Your task to perform on an android device: open app "Messenger Lite" (install if not already installed) Image 0: 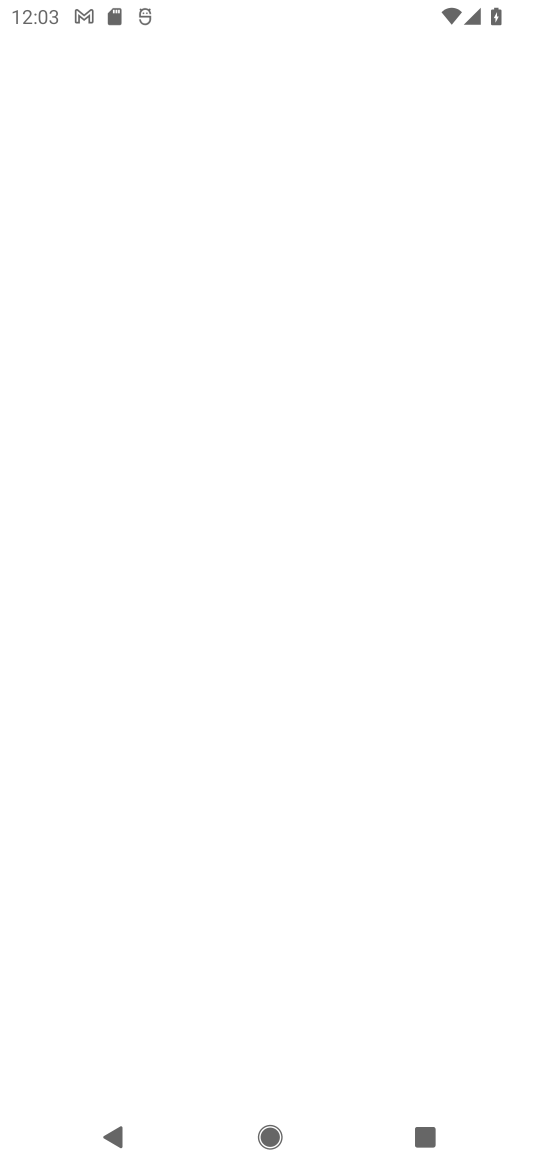
Step 0: press home button
Your task to perform on an android device: open app "Messenger Lite" (install if not already installed) Image 1: 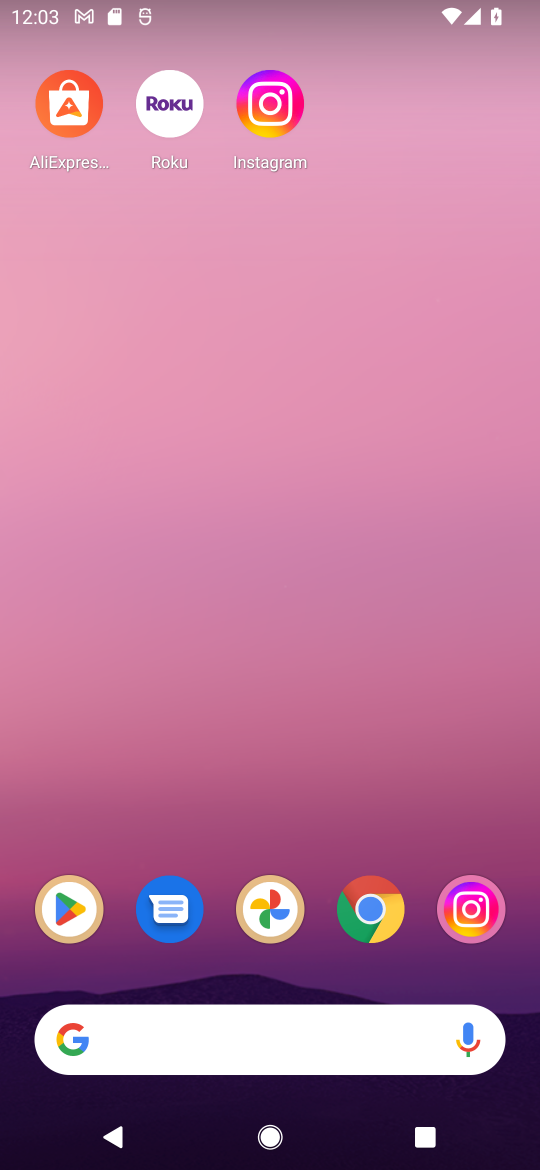
Step 1: click (83, 897)
Your task to perform on an android device: open app "Messenger Lite" (install if not already installed) Image 2: 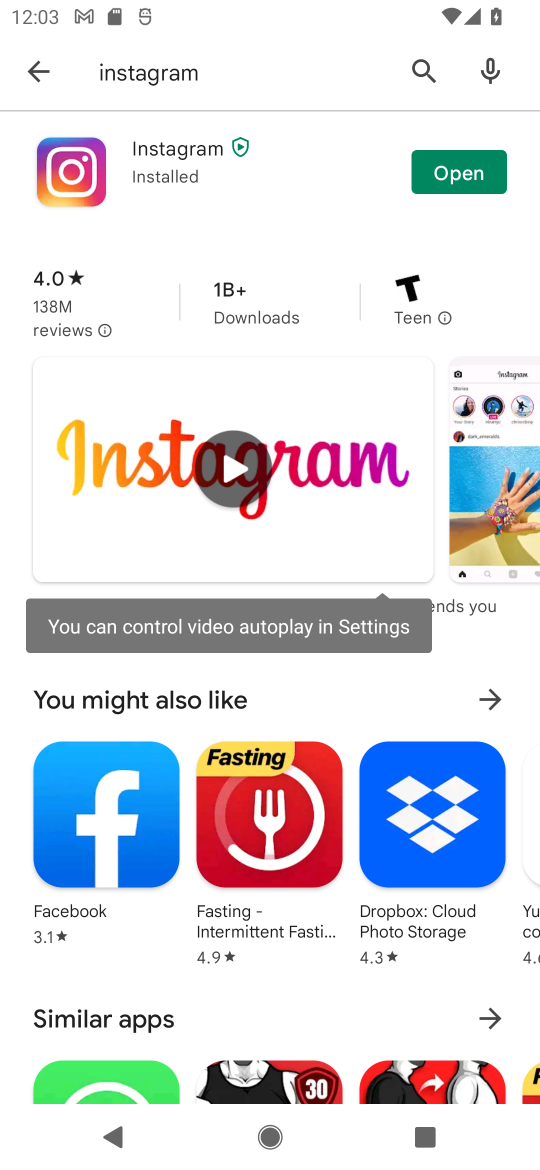
Step 2: click (417, 65)
Your task to perform on an android device: open app "Messenger Lite" (install if not already installed) Image 3: 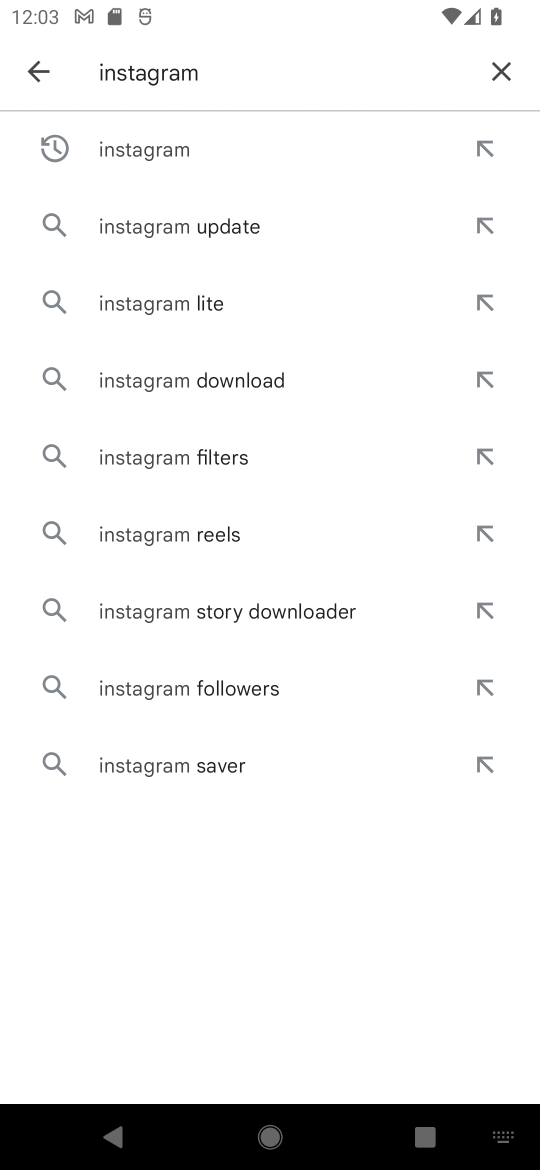
Step 3: click (518, 69)
Your task to perform on an android device: open app "Messenger Lite" (install if not already installed) Image 4: 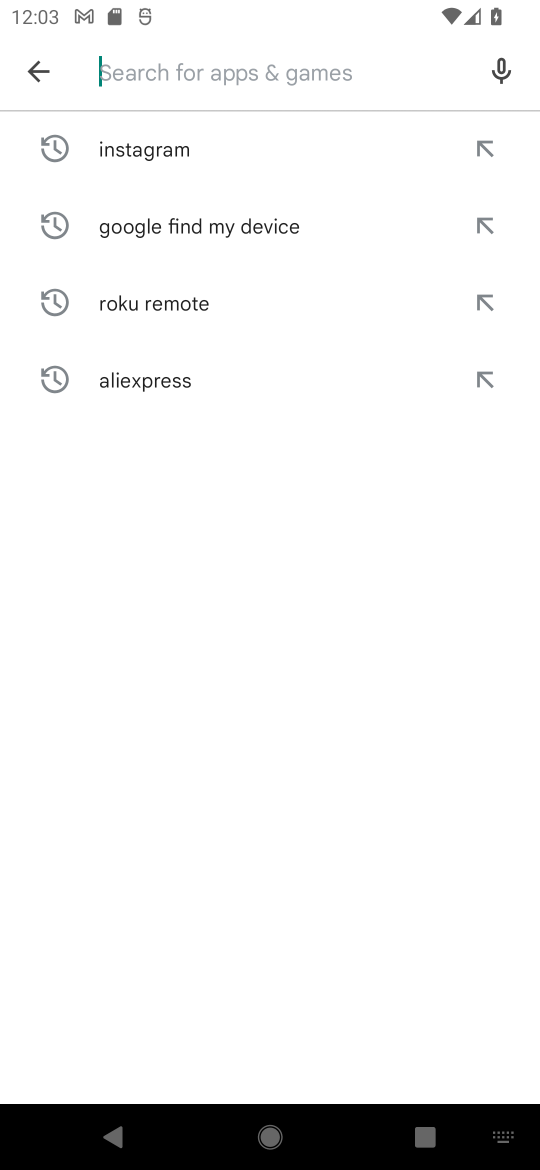
Step 4: type "Messenger Lite"
Your task to perform on an android device: open app "Messenger Lite" (install if not already installed) Image 5: 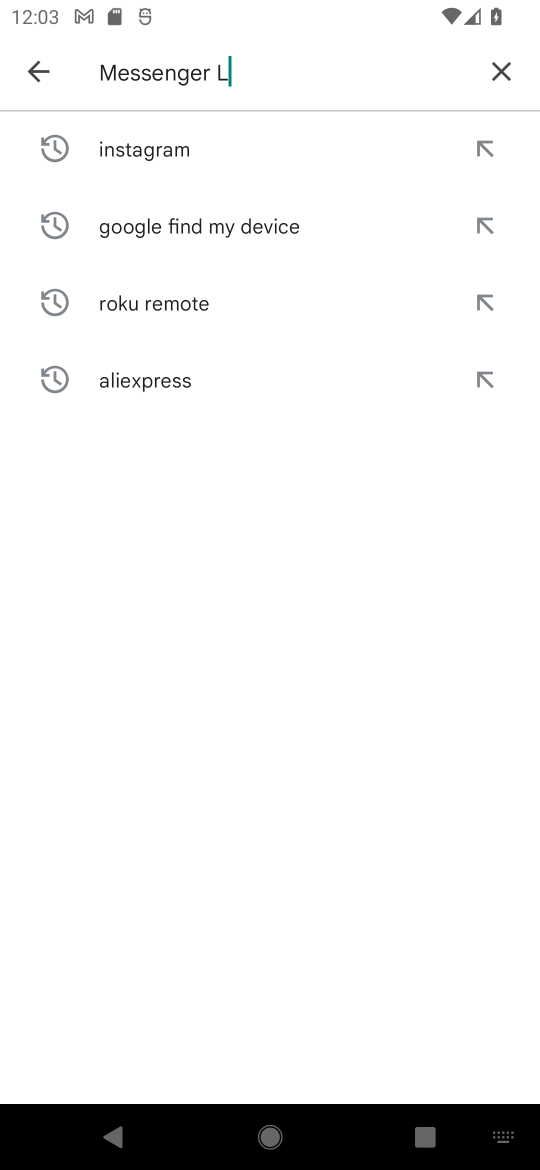
Step 5: type ""
Your task to perform on an android device: open app "Messenger Lite" (install if not already installed) Image 6: 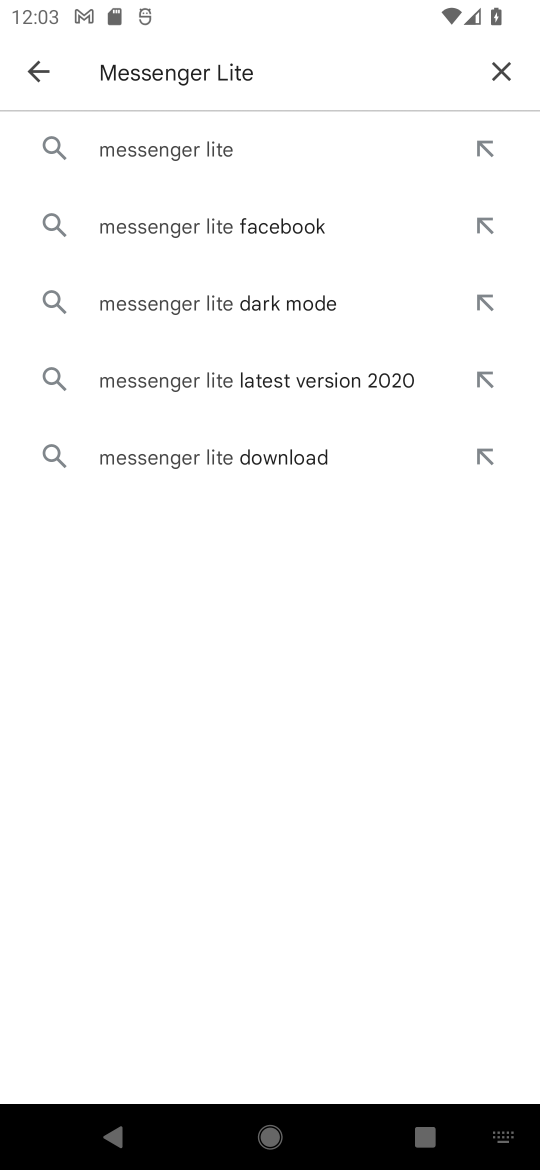
Step 6: click (228, 151)
Your task to perform on an android device: open app "Messenger Lite" (install if not already installed) Image 7: 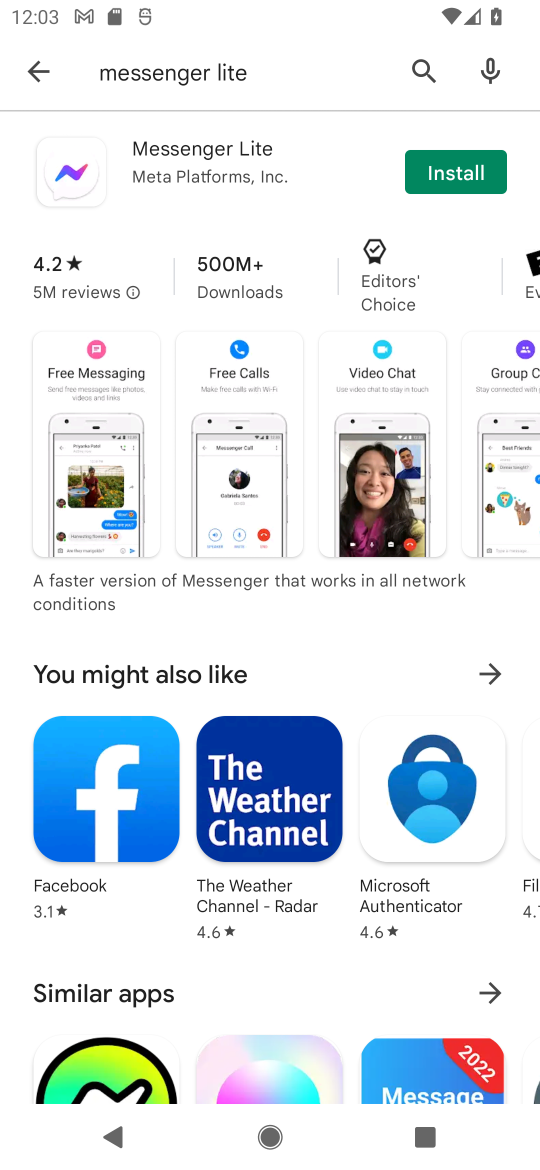
Step 7: click (440, 175)
Your task to perform on an android device: open app "Messenger Lite" (install if not already installed) Image 8: 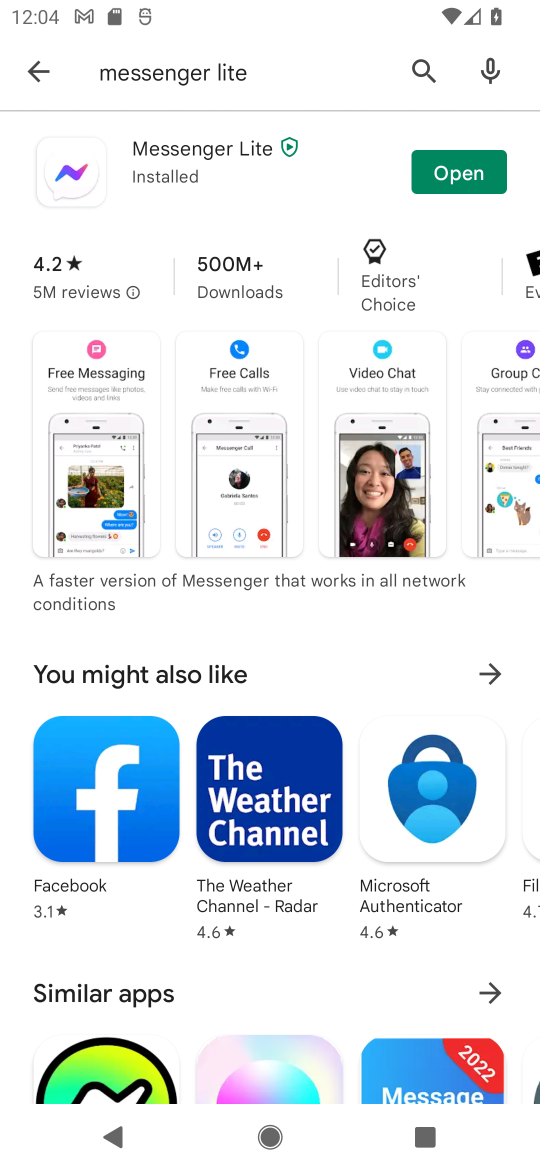
Step 8: task complete